Your task to perform on an android device: toggle translation in the chrome app Image 0: 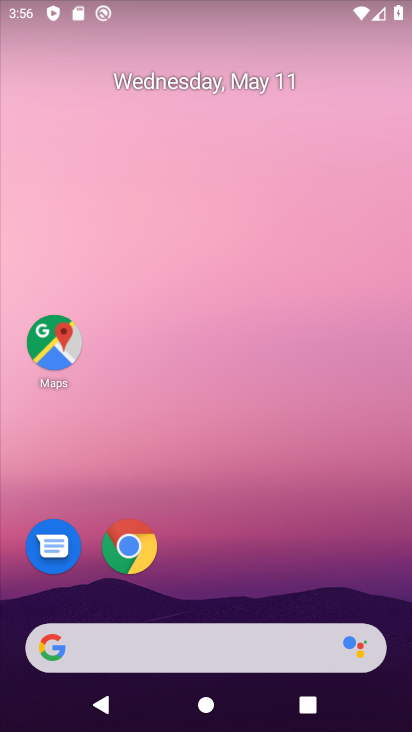
Step 0: click (128, 546)
Your task to perform on an android device: toggle translation in the chrome app Image 1: 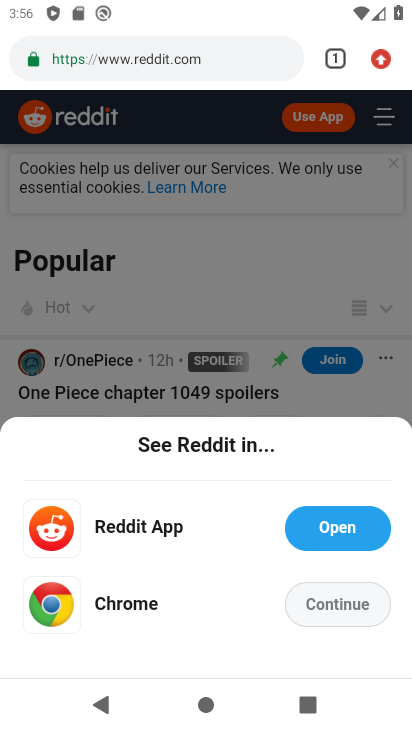
Step 1: click (336, 58)
Your task to perform on an android device: toggle translation in the chrome app Image 2: 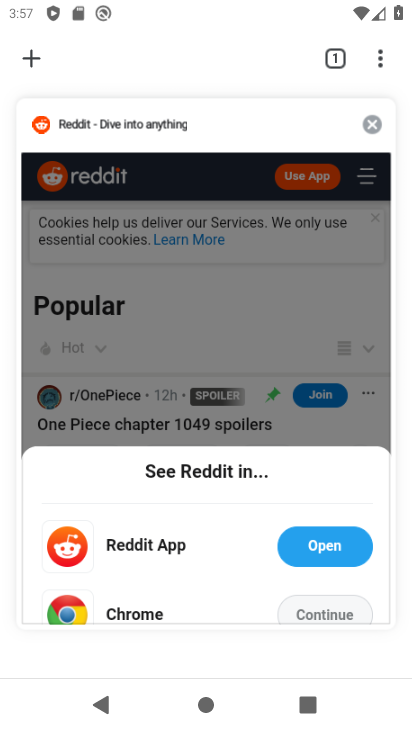
Step 2: click (375, 127)
Your task to perform on an android device: toggle translation in the chrome app Image 3: 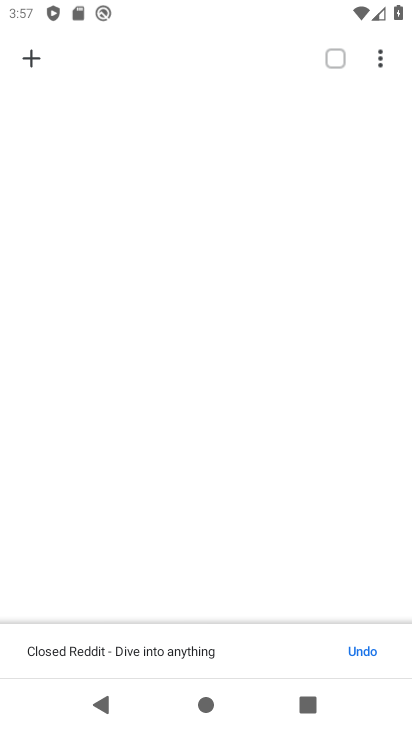
Step 3: click (32, 53)
Your task to perform on an android device: toggle translation in the chrome app Image 4: 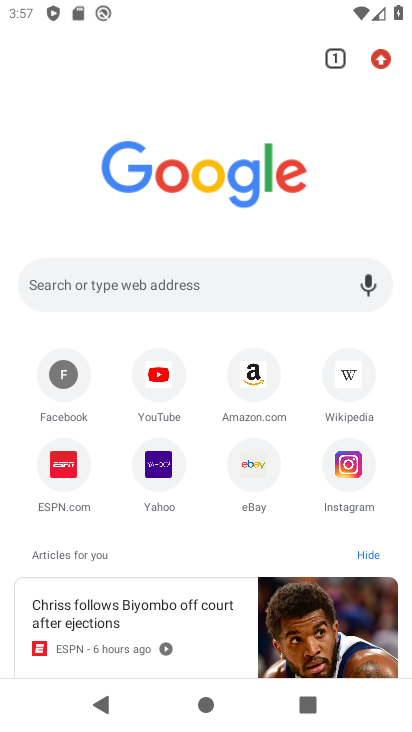
Step 4: click (382, 62)
Your task to perform on an android device: toggle translation in the chrome app Image 5: 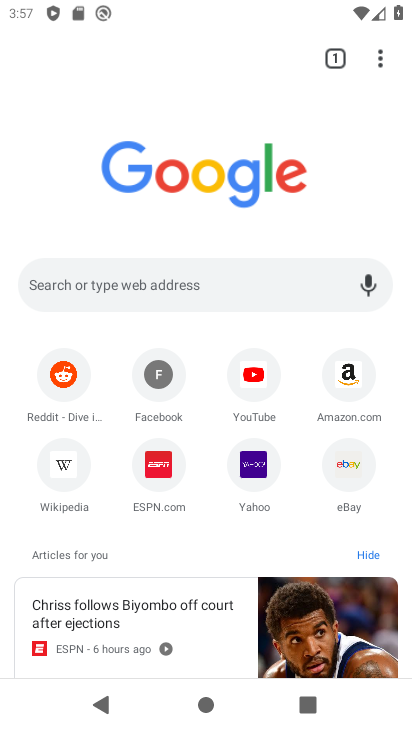
Step 5: click (381, 60)
Your task to perform on an android device: toggle translation in the chrome app Image 6: 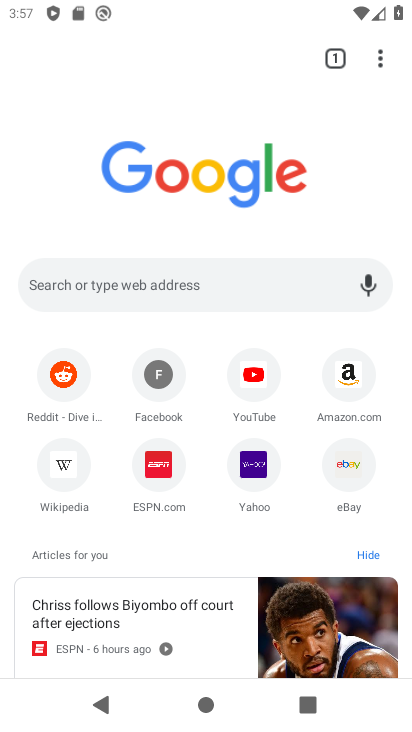
Step 6: click (381, 60)
Your task to perform on an android device: toggle translation in the chrome app Image 7: 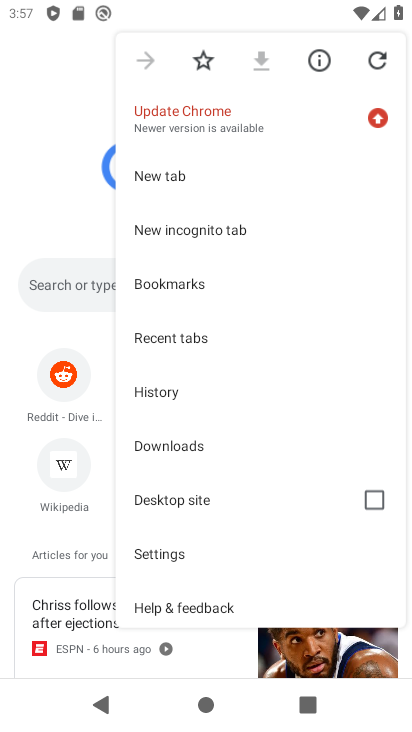
Step 7: drag from (236, 582) to (225, 240)
Your task to perform on an android device: toggle translation in the chrome app Image 8: 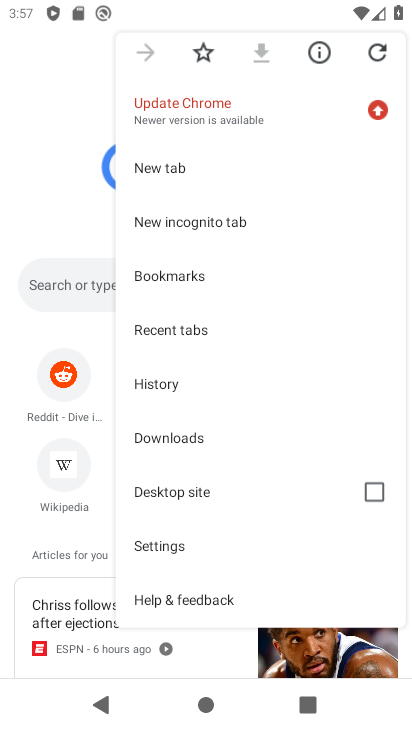
Step 8: click (166, 536)
Your task to perform on an android device: toggle translation in the chrome app Image 9: 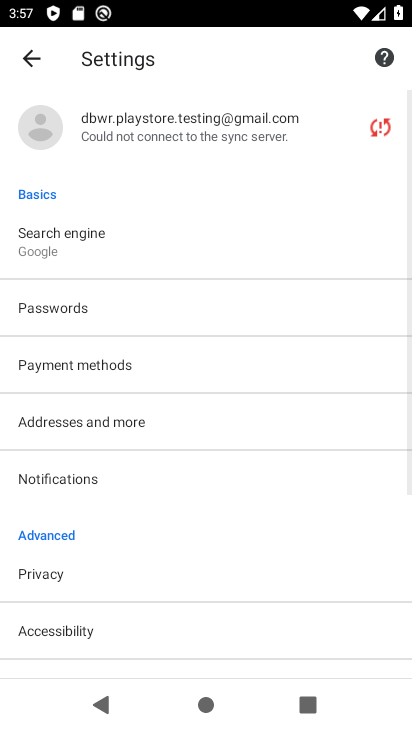
Step 9: drag from (126, 630) to (109, 306)
Your task to perform on an android device: toggle translation in the chrome app Image 10: 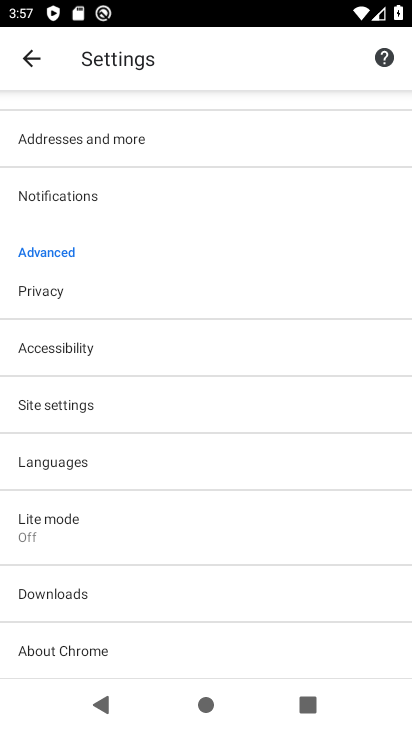
Step 10: click (42, 464)
Your task to perform on an android device: toggle translation in the chrome app Image 11: 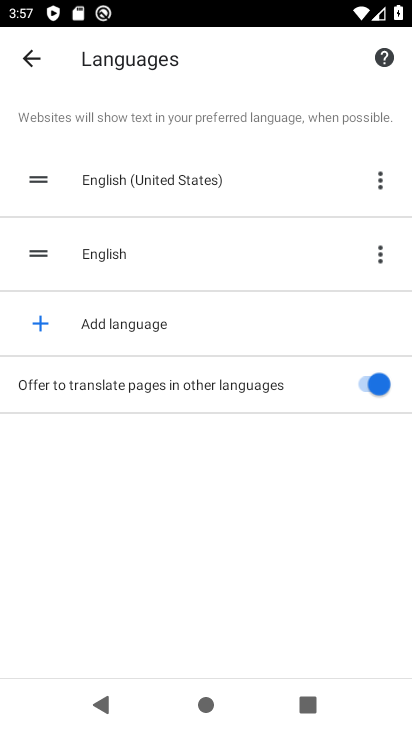
Step 11: click (365, 383)
Your task to perform on an android device: toggle translation in the chrome app Image 12: 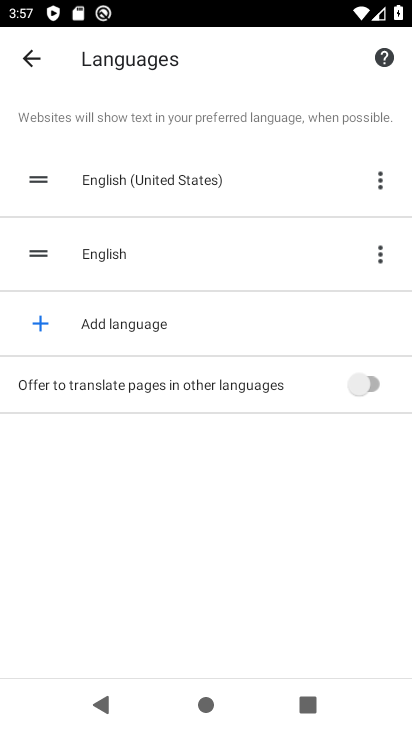
Step 12: task complete